Your task to perform on an android device: Do I have any events tomorrow? Image 0: 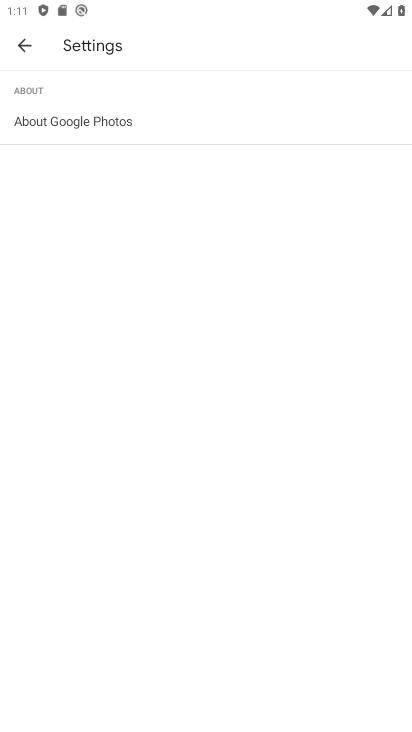
Step 0: press home button
Your task to perform on an android device: Do I have any events tomorrow? Image 1: 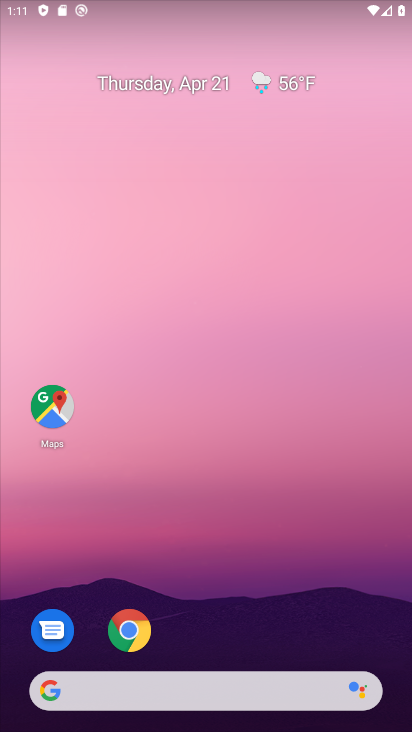
Step 1: drag from (268, 520) to (317, 0)
Your task to perform on an android device: Do I have any events tomorrow? Image 2: 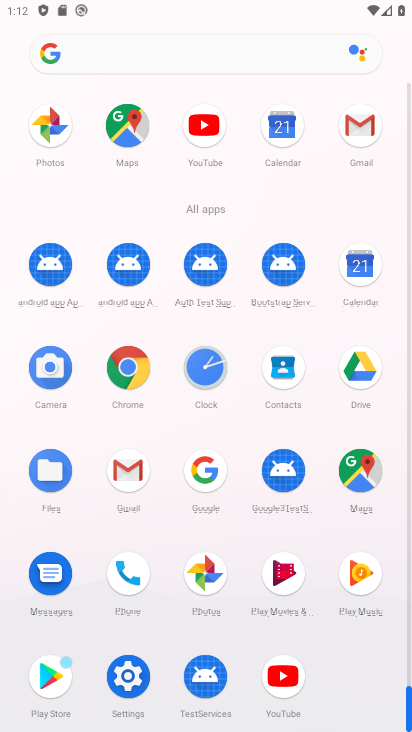
Step 2: click (356, 273)
Your task to perform on an android device: Do I have any events tomorrow? Image 3: 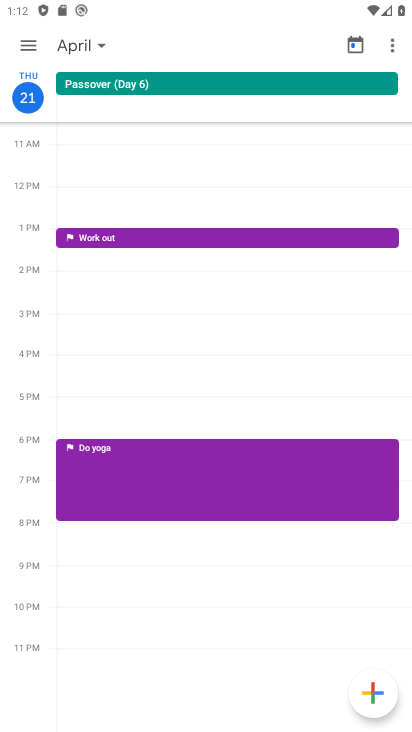
Step 3: click (81, 43)
Your task to perform on an android device: Do I have any events tomorrow? Image 4: 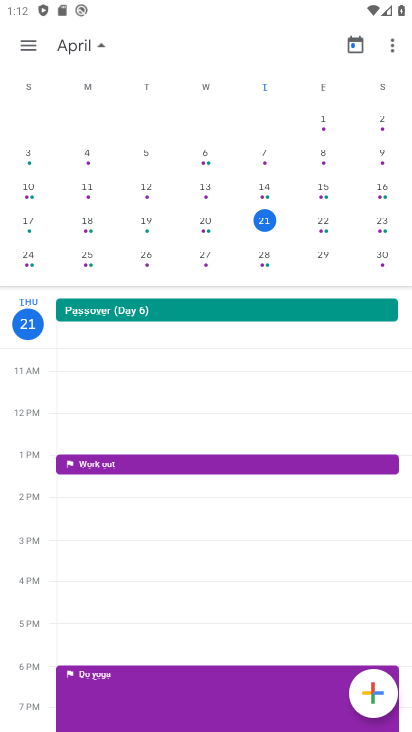
Step 4: click (320, 221)
Your task to perform on an android device: Do I have any events tomorrow? Image 5: 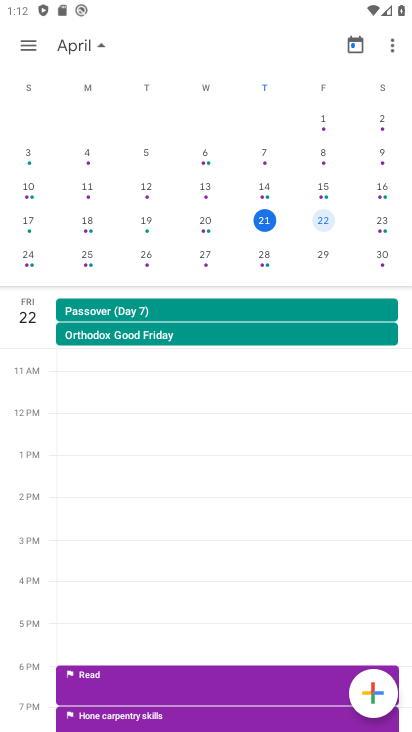
Step 5: task complete